Your task to perform on an android device: Add "macbook pro" to the cart on costco Image 0: 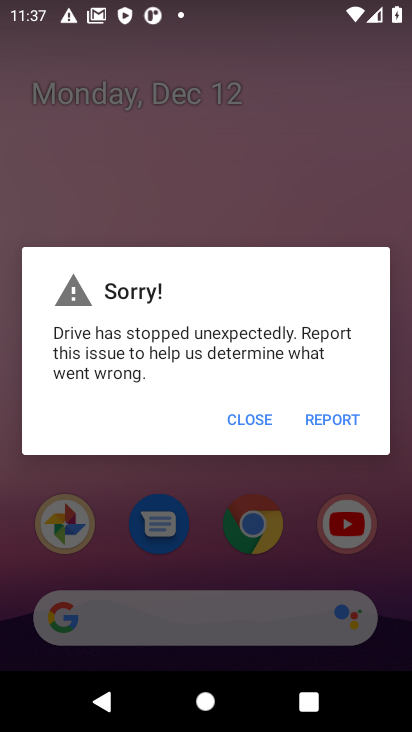
Step 0: press home button
Your task to perform on an android device: Add "macbook pro" to the cart on costco Image 1: 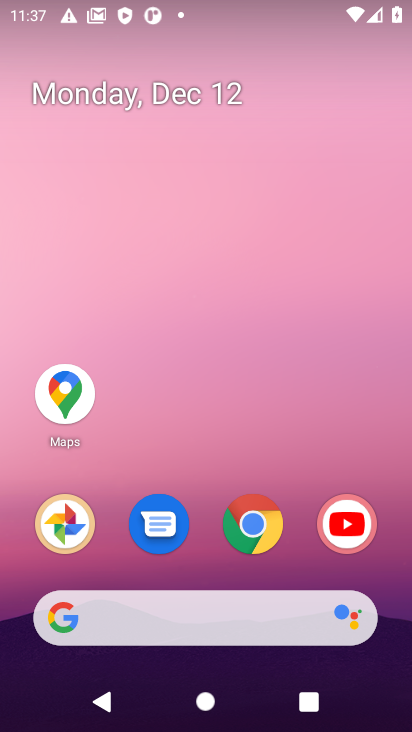
Step 1: click (250, 522)
Your task to perform on an android device: Add "macbook pro" to the cart on costco Image 2: 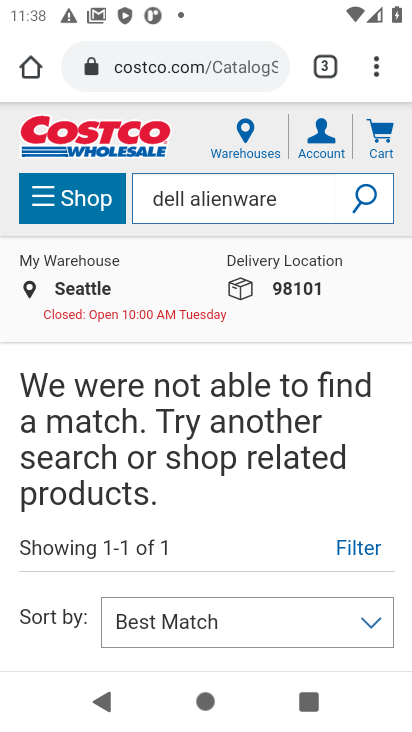
Step 2: click (285, 196)
Your task to perform on an android device: Add "macbook pro" to the cart on costco Image 3: 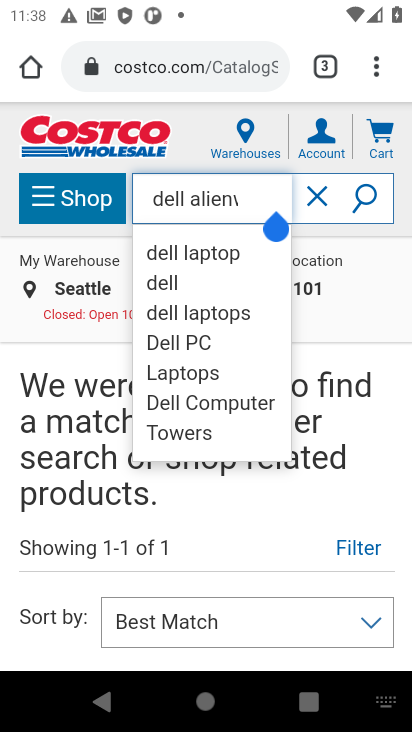
Step 3: click (309, 197)
Your task to perform on an android device: Add "macbook pro" to the cart on costco Image 4: 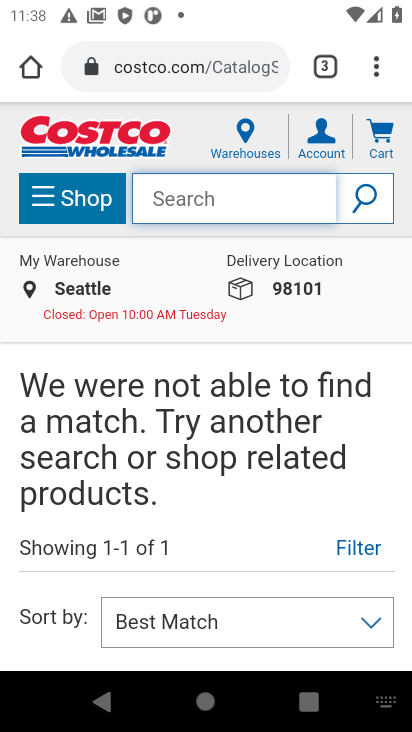
Step 4: type "macbook pro"
Your task to perform on an android device: Add "macbook pro" to the cart on costco Image 5: 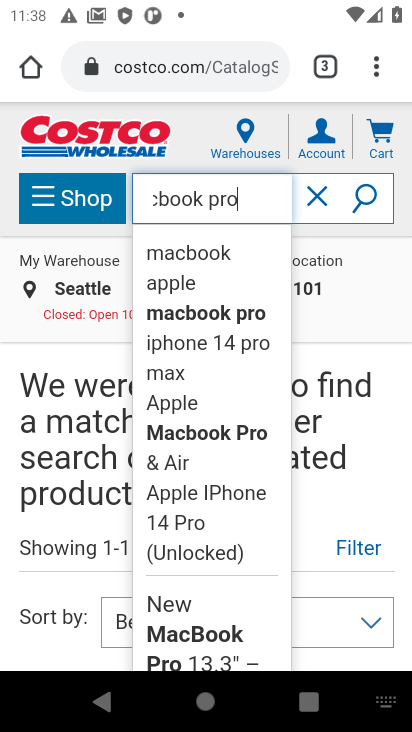
Step 5: click (374, 200)
Your task to perform on an android device: Add "macbook pro" to the cart on costco Image 6: 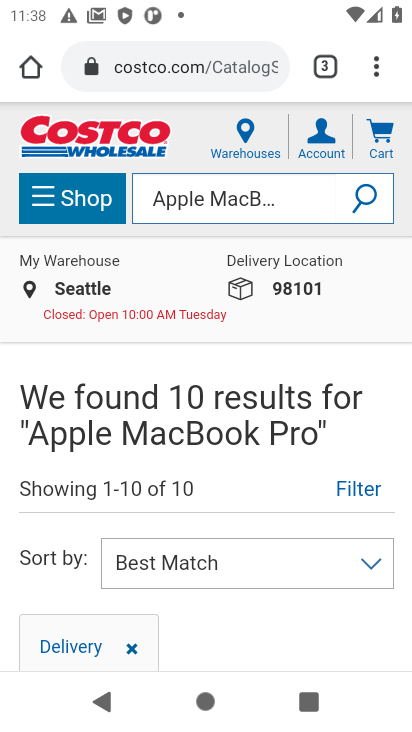
Step 6: drag from (227, 493) to (219, 254)
Your task to perform on an android device: Add "macbook pro" to the cart on costco Image 7: 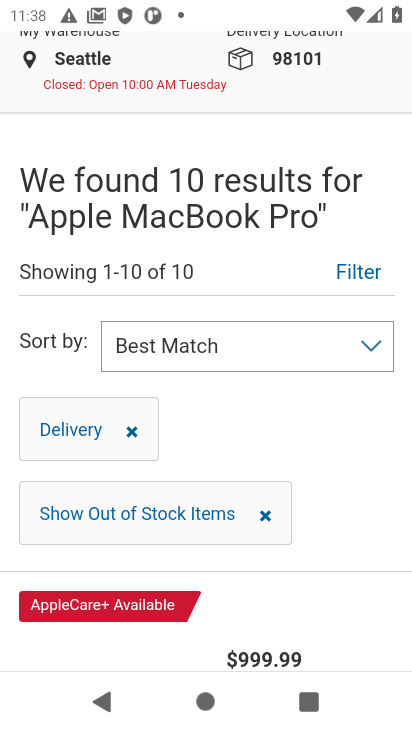
Step 7: drag from (319, 565) to (305, 244)
Your task to perform on an android device: Add "macbook pro" to the cart on costco Image 8: 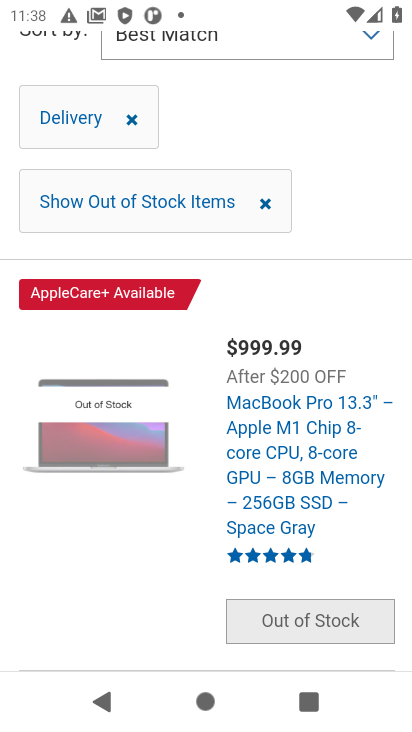
Step 8: drag from (272, 471) to (262, 183)
Your task to perform on an android device: Add "macbook pro" to the cart on costco Image 9: 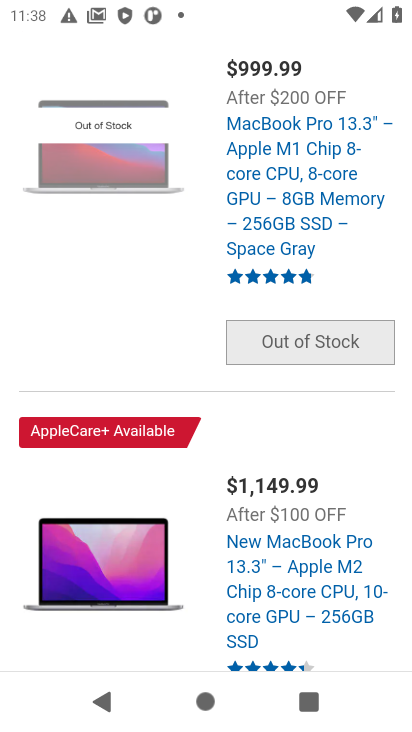
Step 9: drag from (231, 489) to (235, 235)
Your task to perform on an android device: Add "macbook pro" to the cart on costco Image 10: 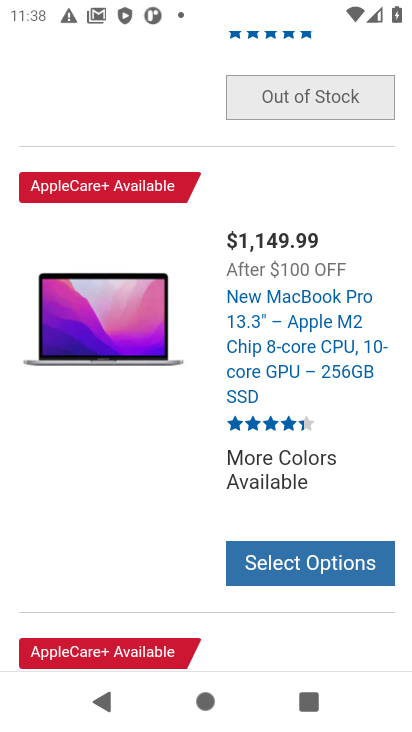
Step 10: click (276, 348)
Your task to perform on an android device: Add "macbook pro" to the cart on costco Image 11: 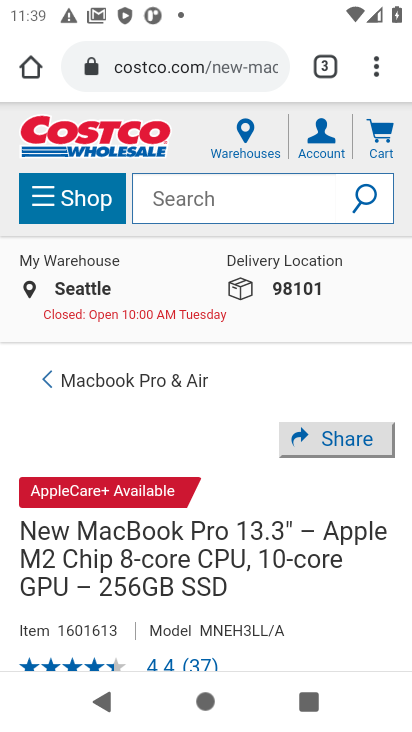
Step 11: drag from (239, 555) to (227, 314)
Your task to perform on an android device: Add "macbook pro" to the cart on costco Image 12: 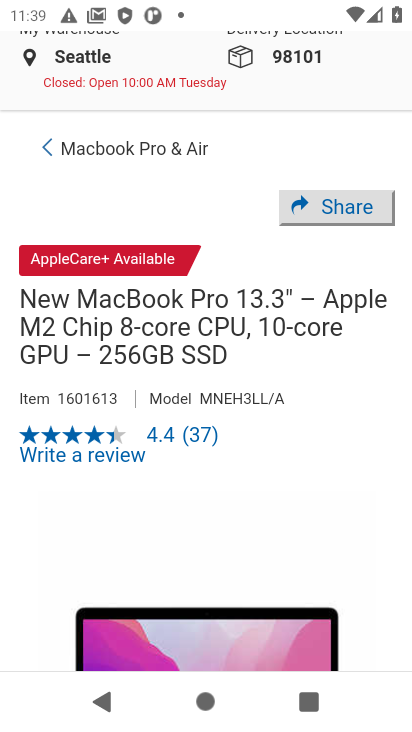
Step 12: drag from (214, 490) to (187, 159)
Your task to perform on an android device: Add "macbook pro" to the cart on costco Image 13: 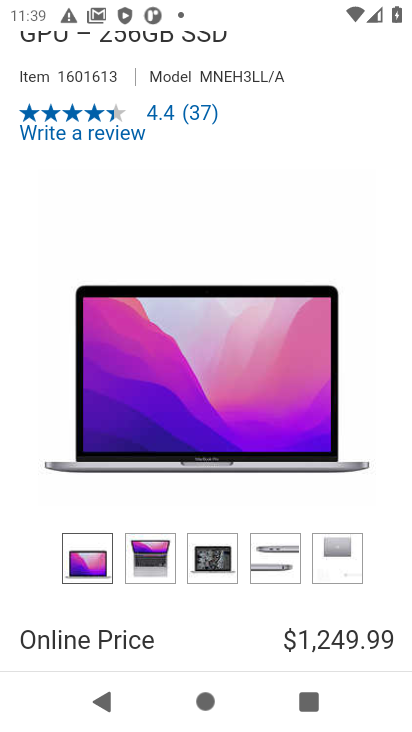
Step 13: drag from (224, 418) to (192, 114)
Your task to perform on an android device: Add "macbook pro" to the cart on costco Image 14: 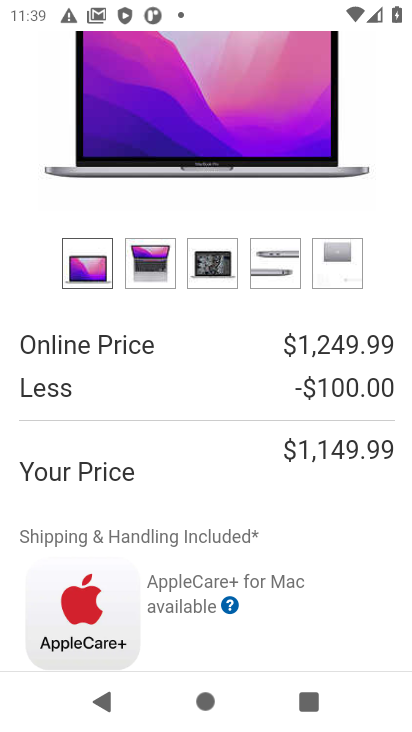
Step 14: drag from (212, 464) to (163, 106)
Your task to perform on an android device: Add "macbook pro" to the cart on costco Image 15: 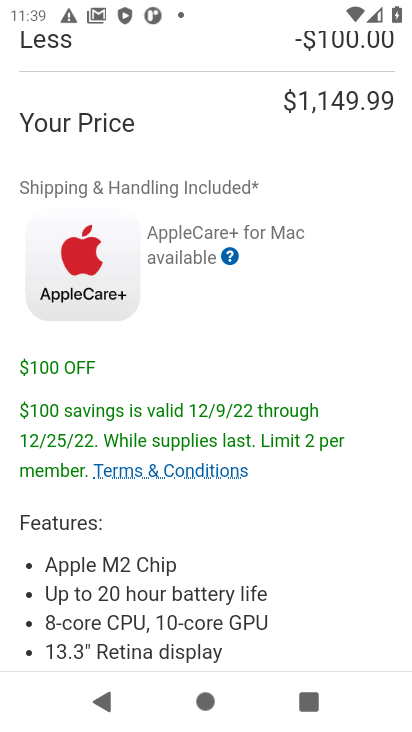
Step 15: drag from (194, 477) to (186, 152)
Your task to perform on an android device: Add "macbook pro" to the cart on costco Image 16: 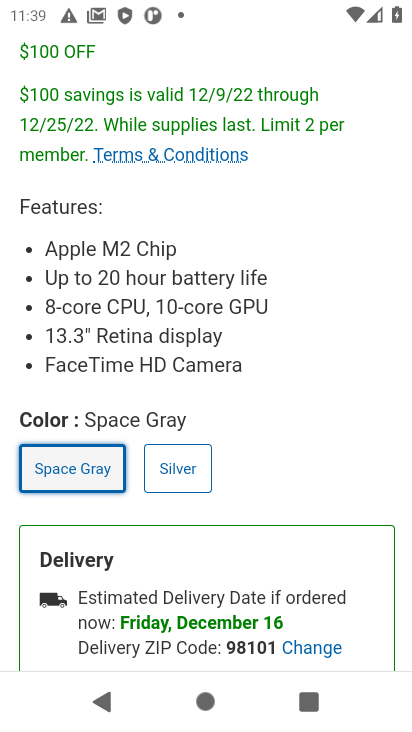
Step 16: drag from (256, 489) to (231, 135)
Your task to perform on an android device: Add "macbook pro" to the cart on costco Image 17: 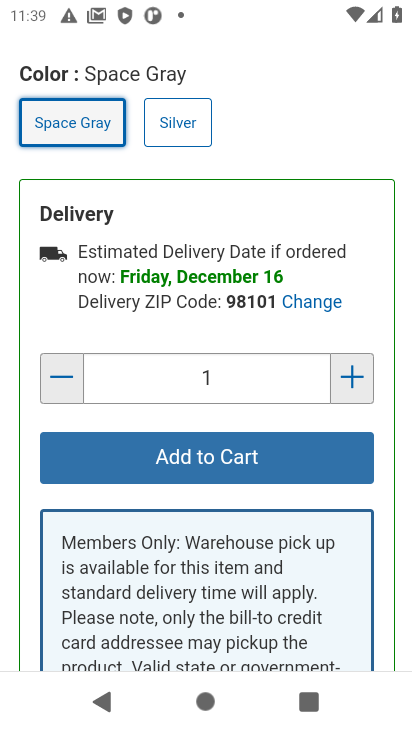
Step 17: click (177, 458)
Your task to perform on an android device: Add "macbook pro" to the cart on costco Image 18: 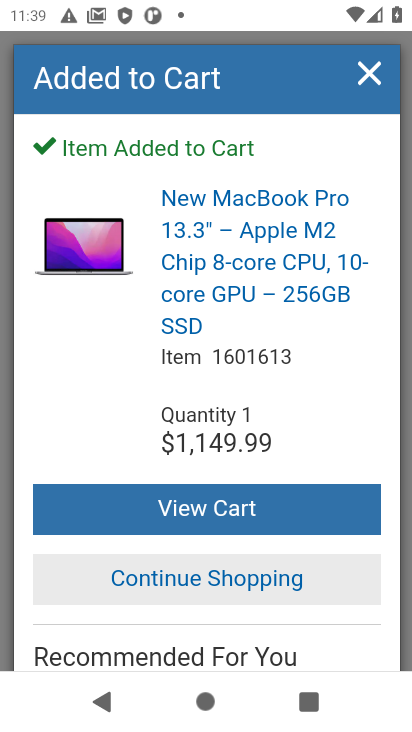
Step 18: task complete